Your task to perform on an android device: refresh tabs in the chrome app Image 0: 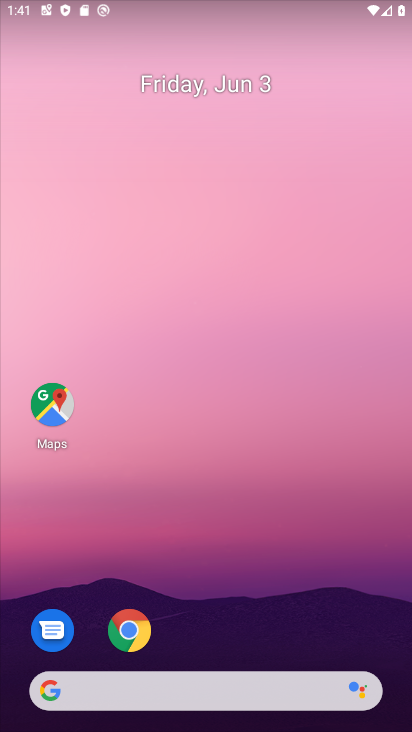
Step 0: click (128, 630)
Your task to perform on an android device: refresh tabs in the chrome app Image 1: 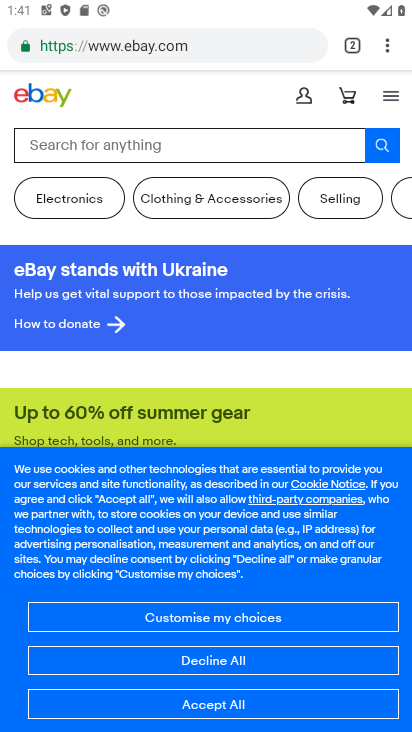
Step 1: click (388, 50)
Your task to perform on an android device: refresh tabs in the chrome app Image 2: 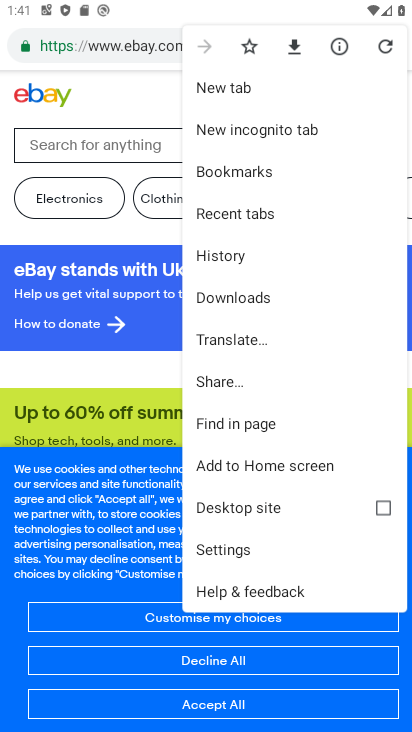
Step 2: click (386, 43)
Your task to perform on an android device: refresh tabs in the chrome app Image 3: 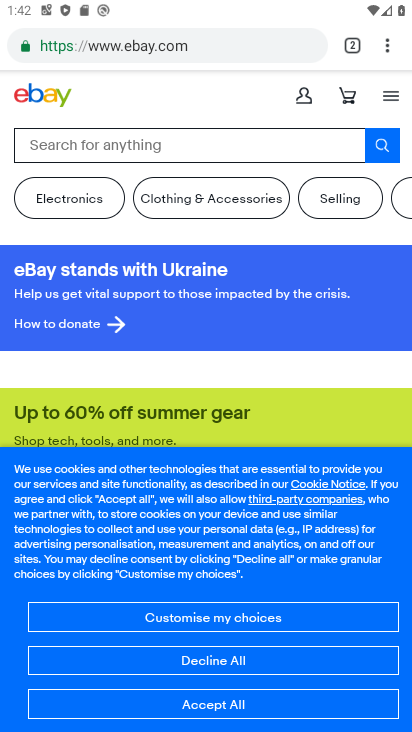
Step 3: task complete